Your task to perform on an android device: Check the weather Image 0: 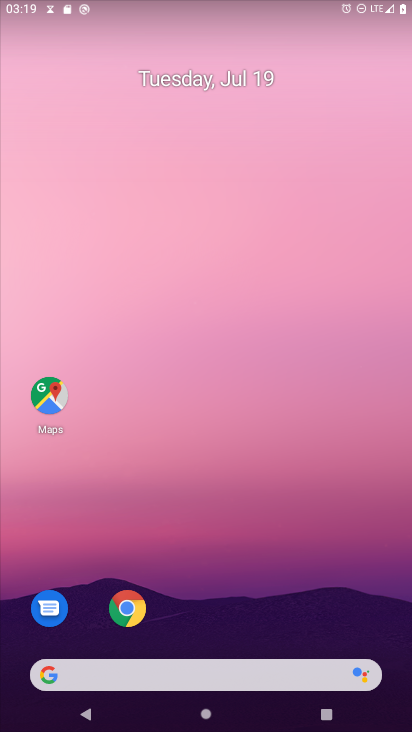
Step 0: drag from (210, 511) to (226, 114)
Your task to perform on an android device: Check the weather Image 1: 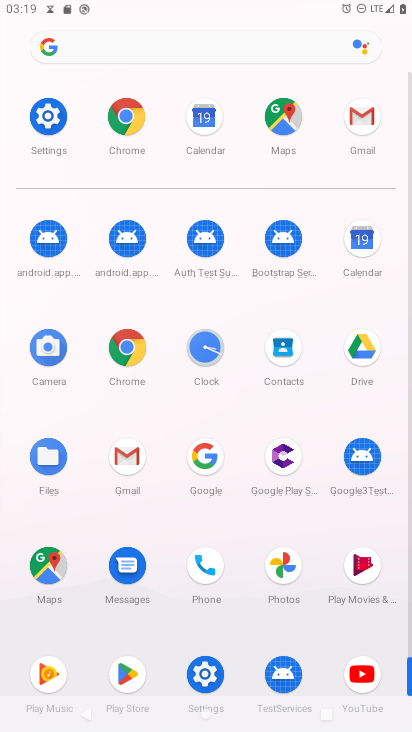
Step 1: click (138, 346)
Your task to perform on an android device: Check the weather Image 2: 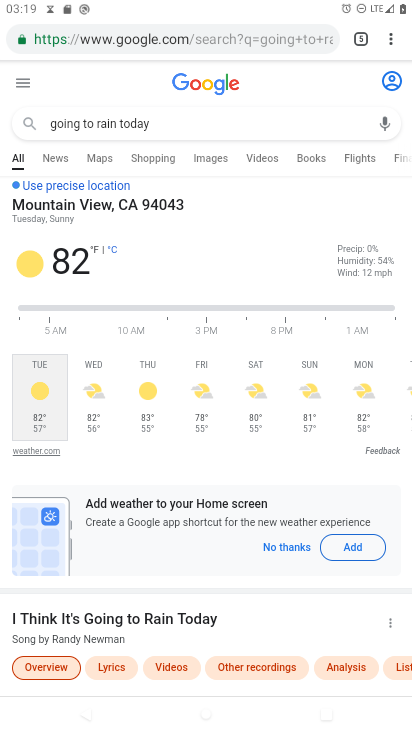
Step 2: click (213, 40)
Your task to perform on an android device: Check the weather Image 3: 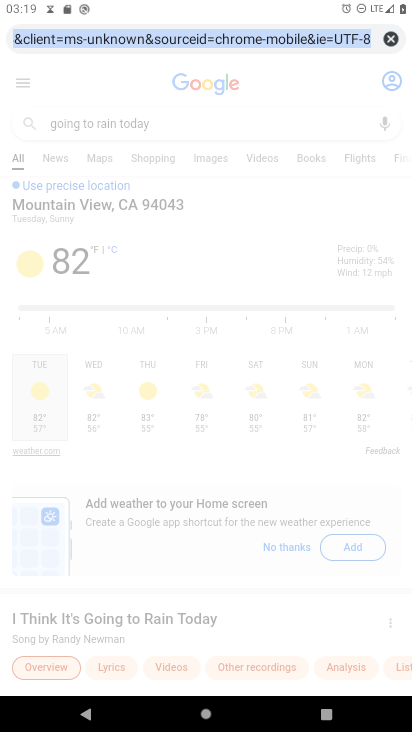
Step 3: type "check the weather"
Your task to perform on an android device: Check the weather Image 4: 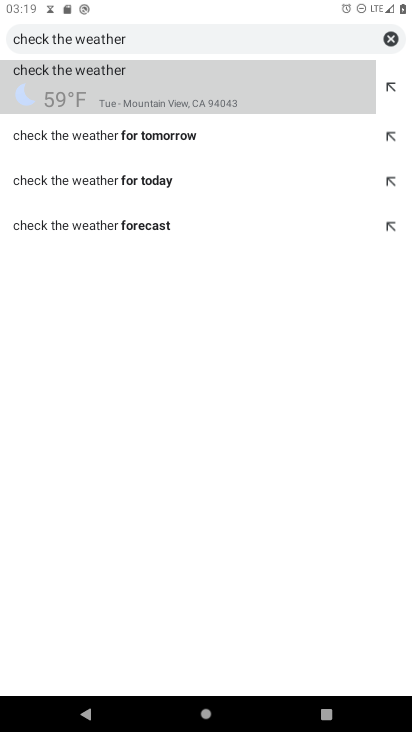
Step 4: click (197, 100)
Your task to perform on an android device: Check the weather Image 5: 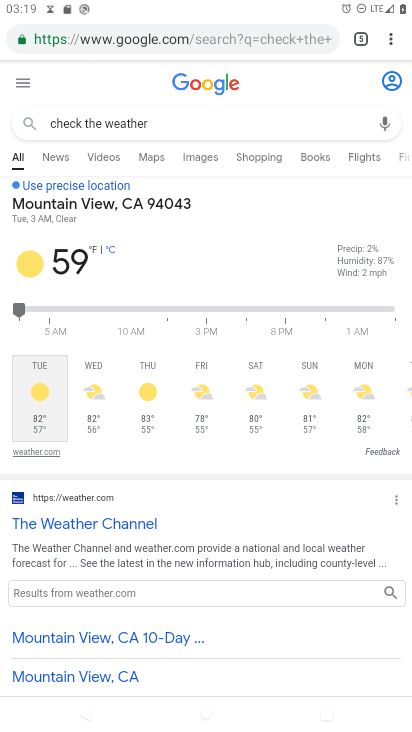
Step 5: task complete